Your task to perform on an android device: check data usage Image 0: 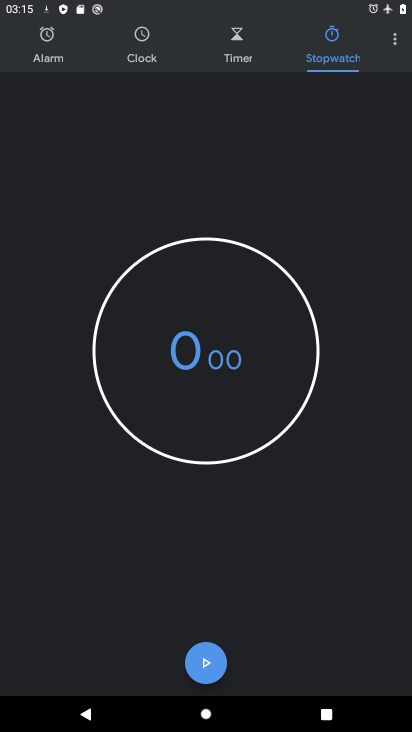
Step 0: press home button
Your task to perform on an android device: check data usage Image 1: 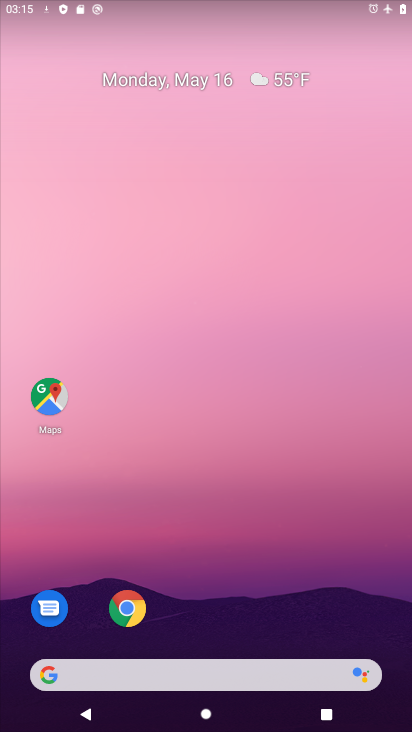
Step 1: click (192, 210)
Your task to perform on an android device: check data usage Image 2: 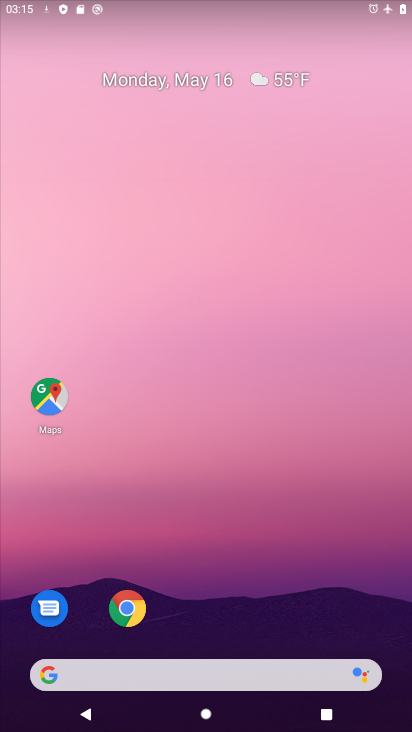
Step 2: drag from (223, 639) to (228, 156)
Your task to perform on an android device: check data usage Image 3: 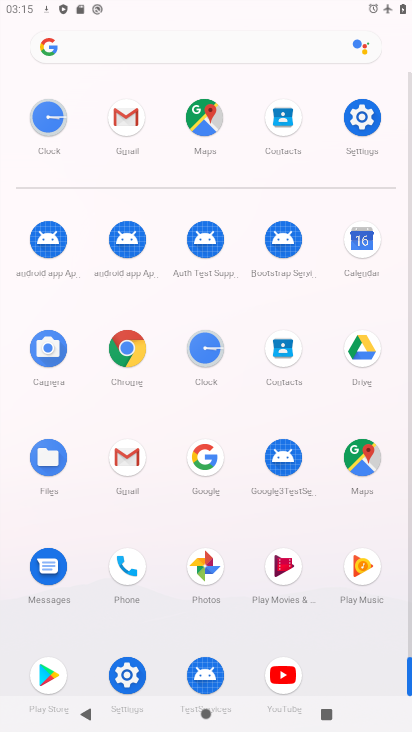
Step 3: click (340, 123)
Your task to perform on an android device: check data usage Image 4: 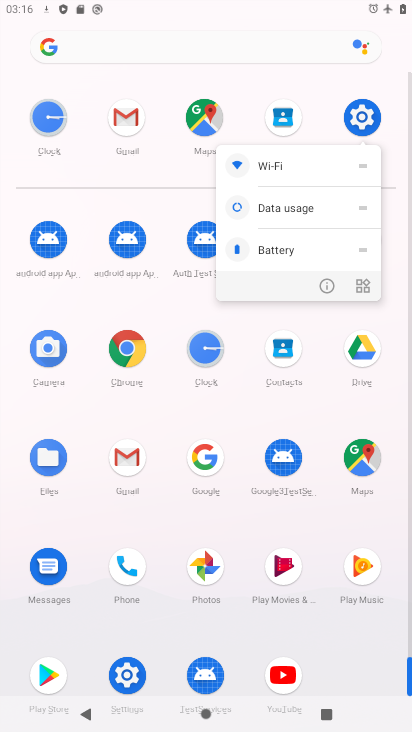
Step 4: click (359, 125)
Your task to perform on an android device: check data usage Image 5: 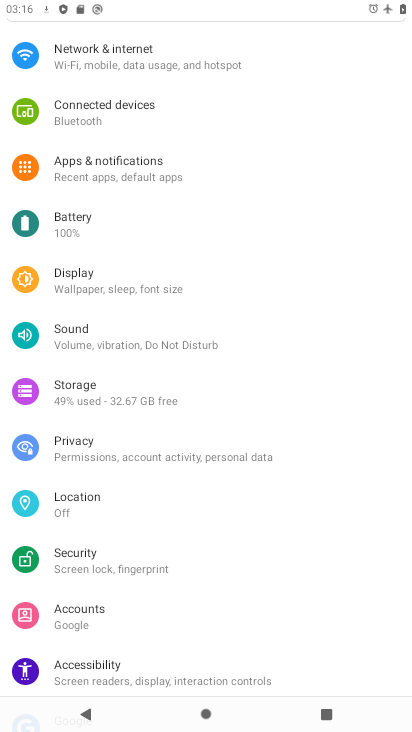
Step 5: drag from (147, 122) to (211, 360)
Your task to perform on an android device: check data usage Image 6: 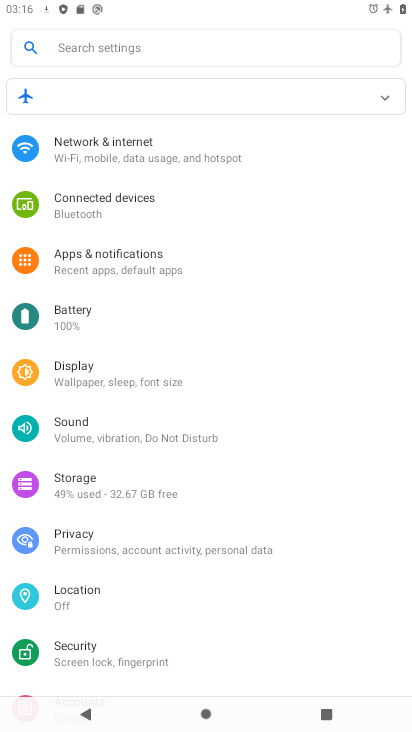
Step 6: click (148, 157)
Your task to perform on an android device: check data usage Image 7: 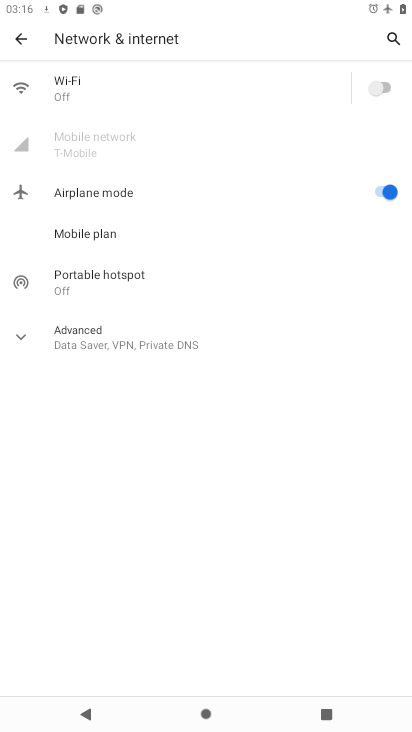
Step 7: click (148, 157)
Your task to perform on an android device: check data usage Image 8: 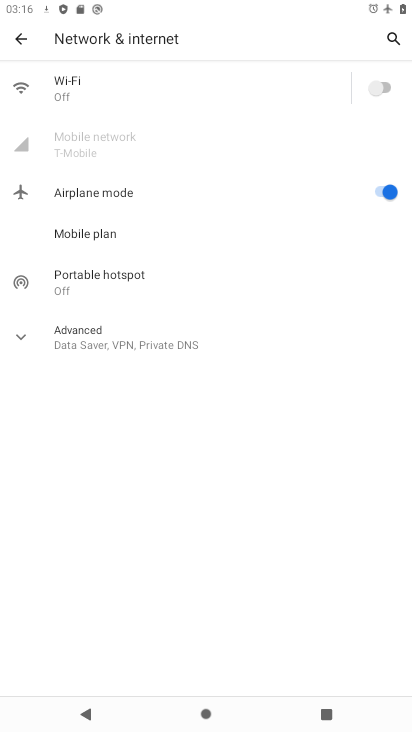
Step 8: task complete